Your task to perform on an android device: toggle location history Image 0: 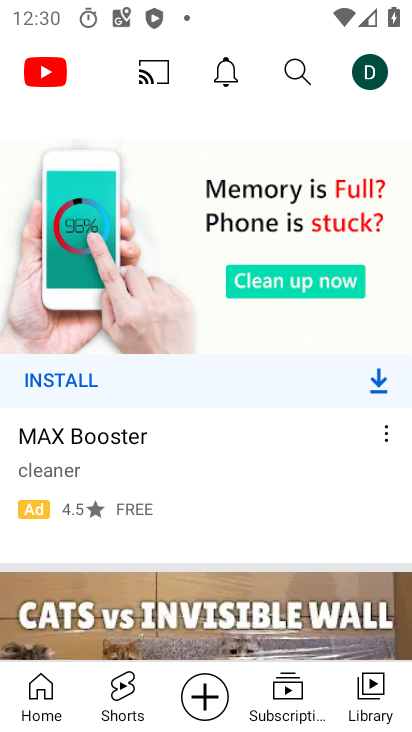
Step 0: press home button
Your task to perform on an android device: toggle location history Image 1: 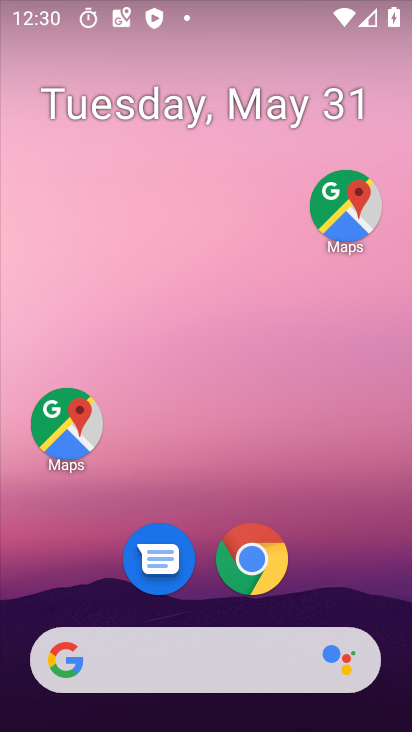
Step 1: drag from (344, 544) to (230, 87)
Your task to perform on an android device: toggle location history Image 2: 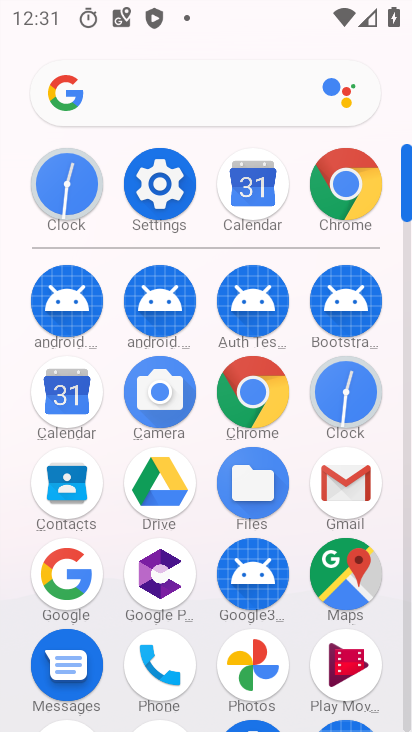
Step 2: click (154, 179)
Your task to perform on an android device: toggle location history Image 3: 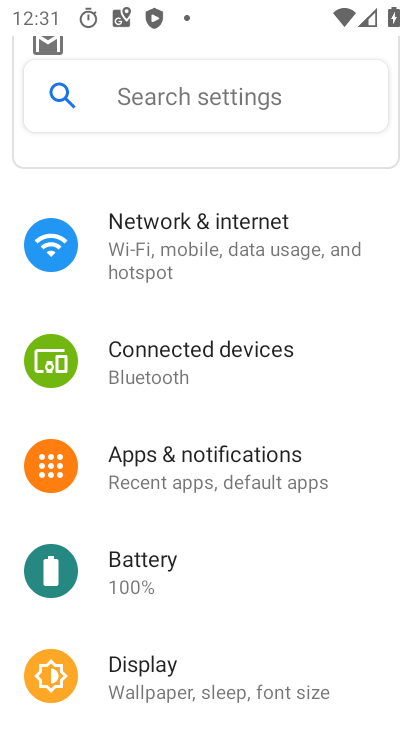
Step 3: drag from (118, 663) to (209, 155)
Your task to perform on an android device: toggle location history Image 4: 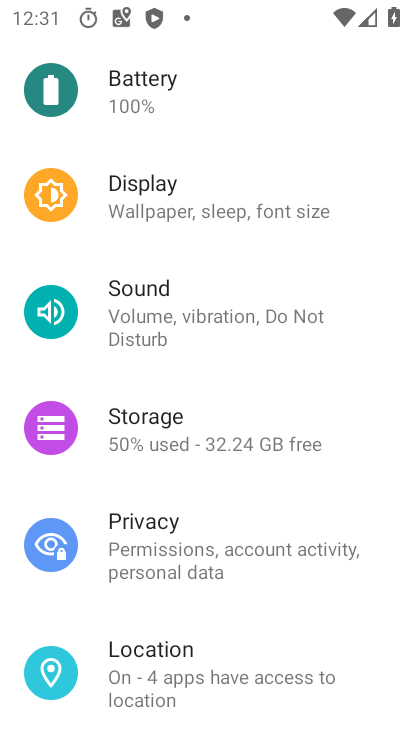
Step 4: click (196, 657)
Your task to perform on an android device: toggle location history Image 5: 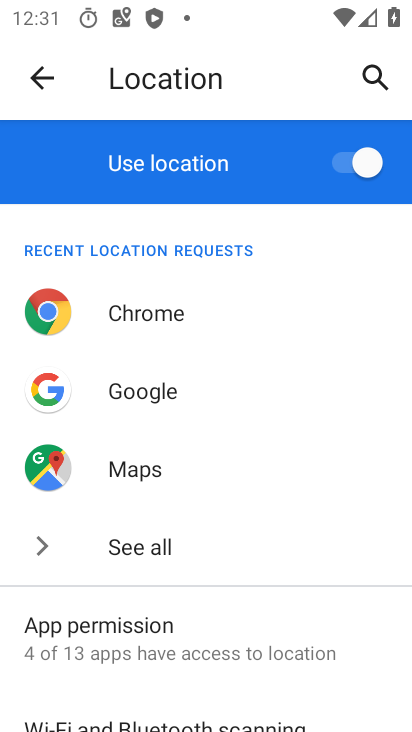
Step 5: drag from (266, 612) to (282, 188)
Your task to perform on an android device: toggle location history Image 6: 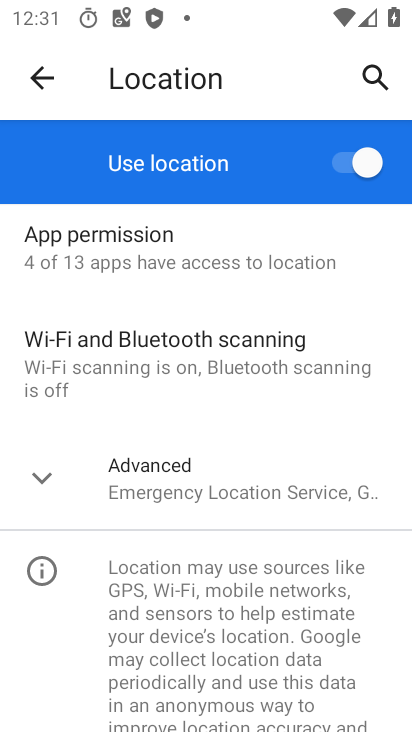
Step 6: click (169, 476)
Your task to perform on an android device: toggle location history Image 7: 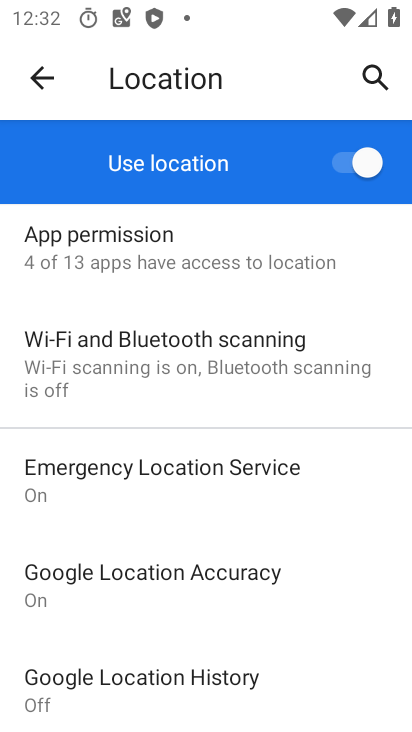
Step 7: click (229, 675)
Your task to perform on an android device: toggle location history Image 8: 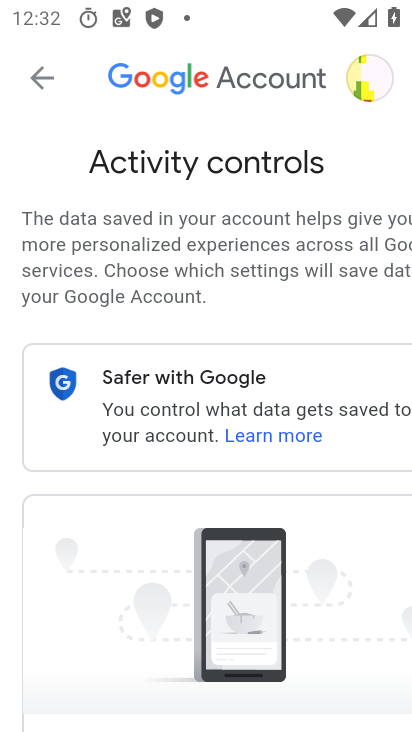
Step 8: drag from (203, 580) to (250, 118)
Your task to perform on an android device: toggle location history Image 9: 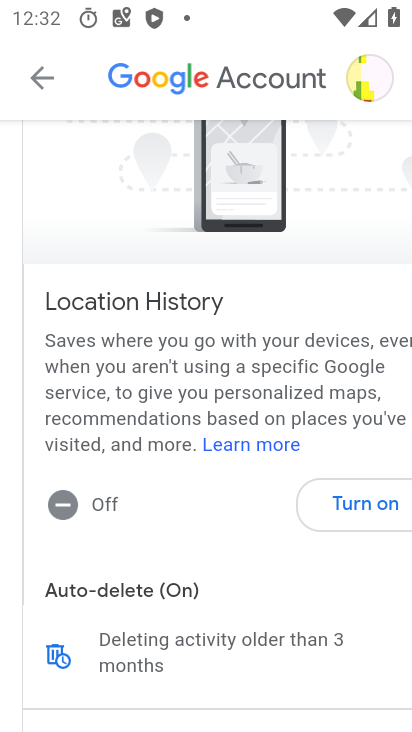
Step 9: click (356, 511)
Your task to perform on an android device: toggle location history Image 10: 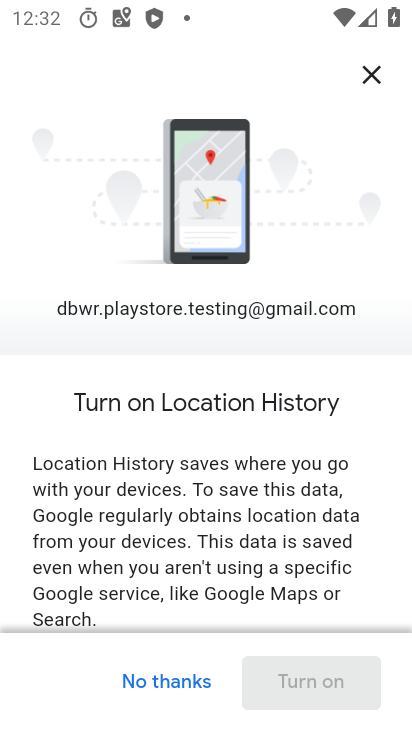
Step 10: drag from (240, 551) to (222, 8)
Your task to perform on an android device: toggle location history Image 11: 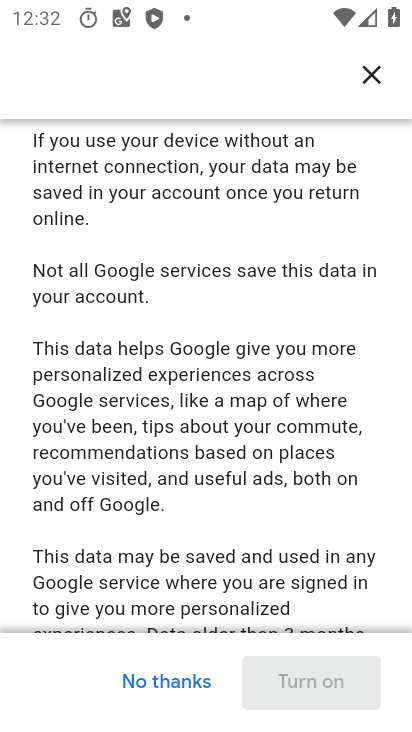
Step 11: drag from (285, 495) to (72, 175)
Your task to perform on an android device: toggle location history Image 12: 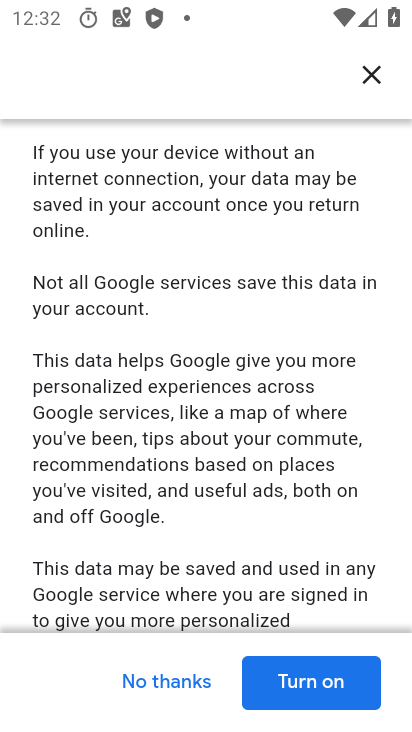
Step 12: click (335, 680)
Your task to perform on an android device: toggle location history Image 13: 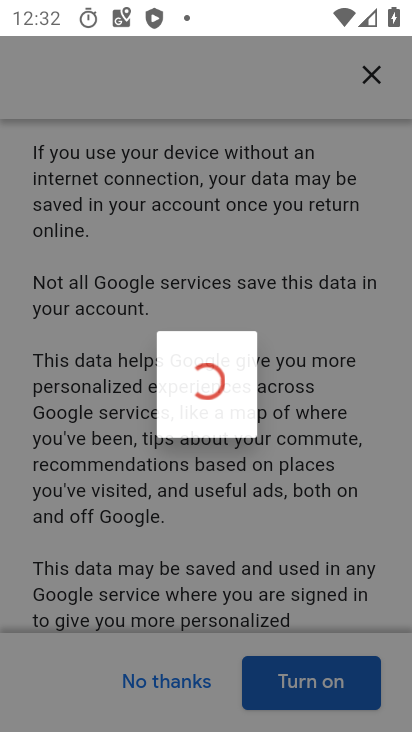
Step 13: click (310, 690)
Your task to perform on an android device: toggle location history Image 14: 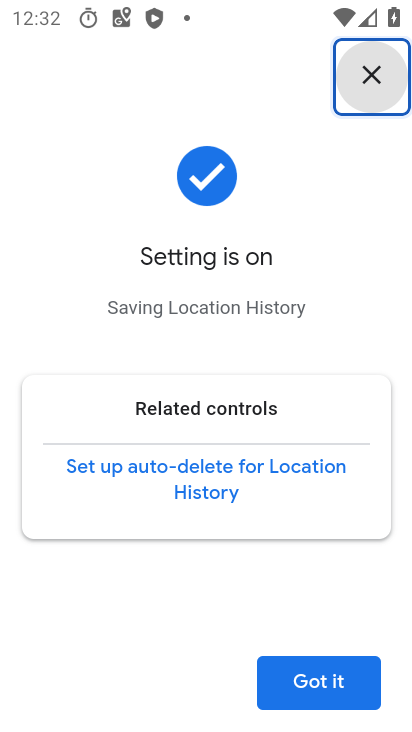
Step 14: click (345, 692)
Your task to perform on an android device: toggle location history Image 15: 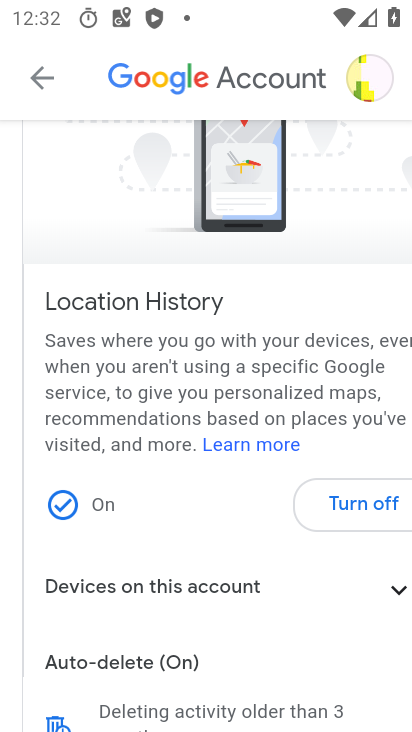
Step 15: task complete